Your task to perform on an android device: star an email in the gmail app Image 0: 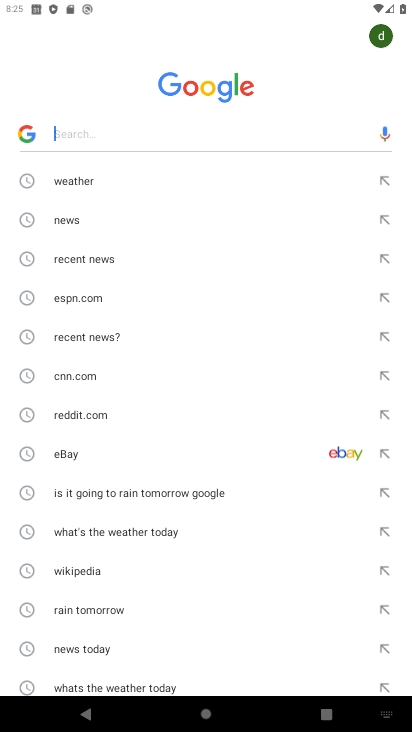
Step 0: press home button
Your task to perform on an android device: star an email in the gmail app Image 1: 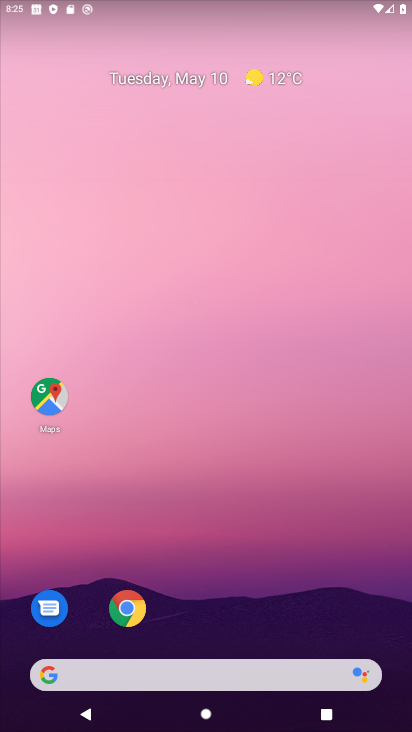
Step 1: drag from (191, 675) to (221, 288)
Your task to perform on an android device: star an email in the gmail app Image 2: 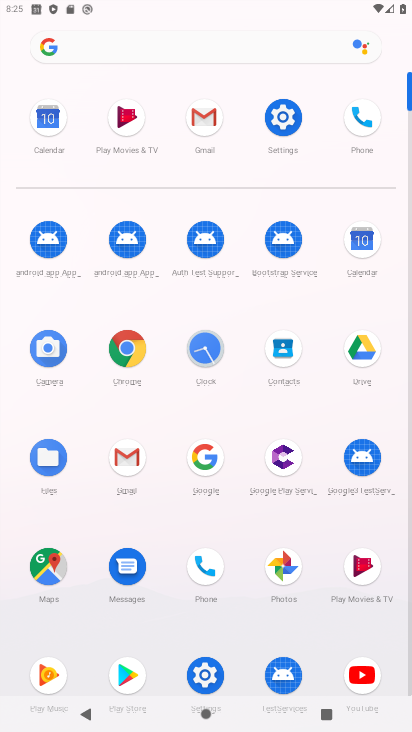
Step 2: click (269, 340)
Your task to perform on an android device: star an email in the gmail app Image 3: 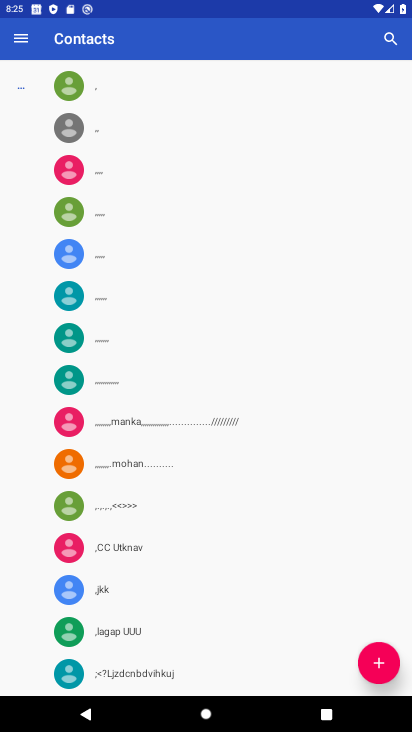
Step 3: press home button
Your task to perform on an android device: star an email in the gmail app Image 4: 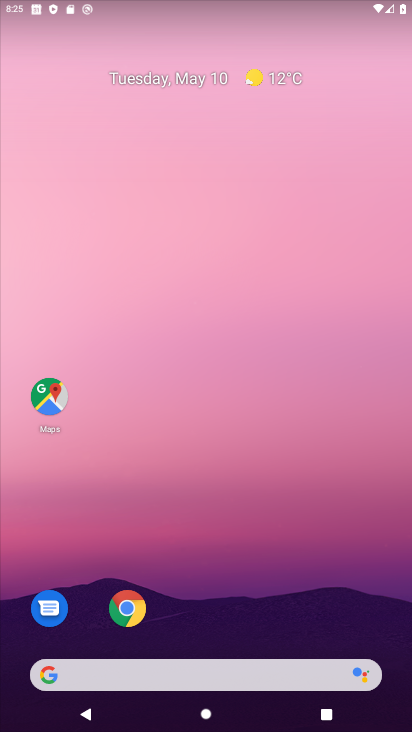
Step 4: drag from (234, 654) to (259, 349)
Your task to perform on an android device: star an email in the gmail app Image 5: 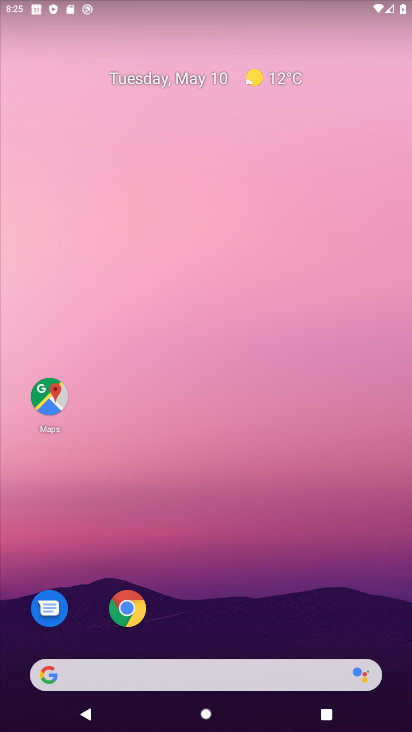
Step 5: drag from (219, 683) to (178, 356)
Your task to perform on an android device: star an email in the gmail app Image 6: 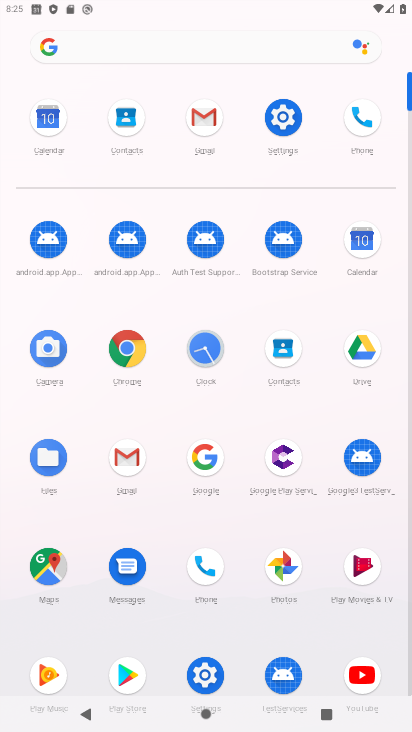
Step 6: click (131, 467)
Your task to perform on an android device: star an email in the gmail app Image 7: 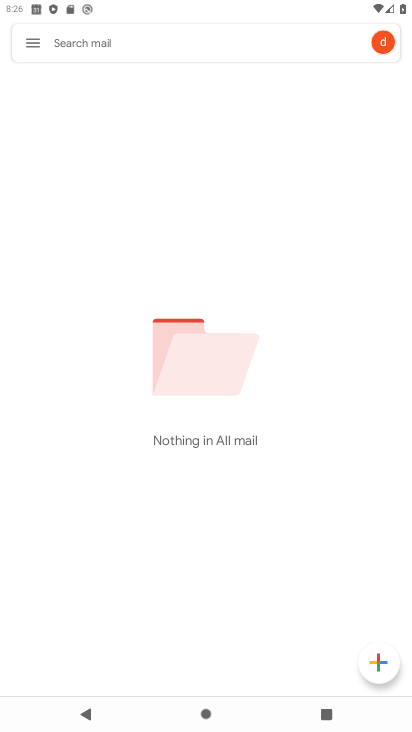
Step 7: click (35, 50)
Your task to perform on an android device: star an email in the gmail app Image 8: 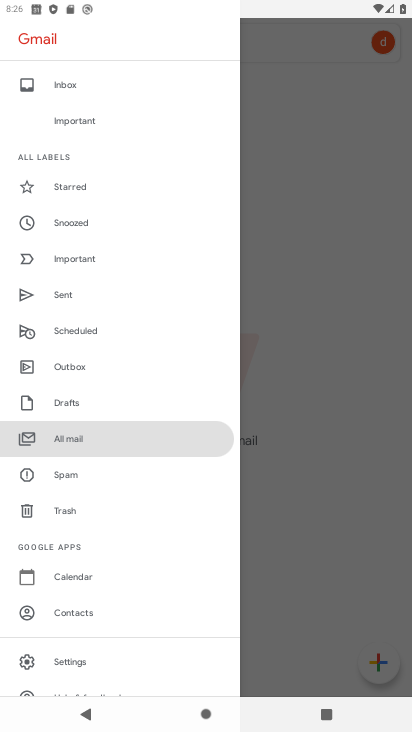
Step 8: click (68, 192)
Your task to perform on an android device: star an email in the gmail app Image 9: 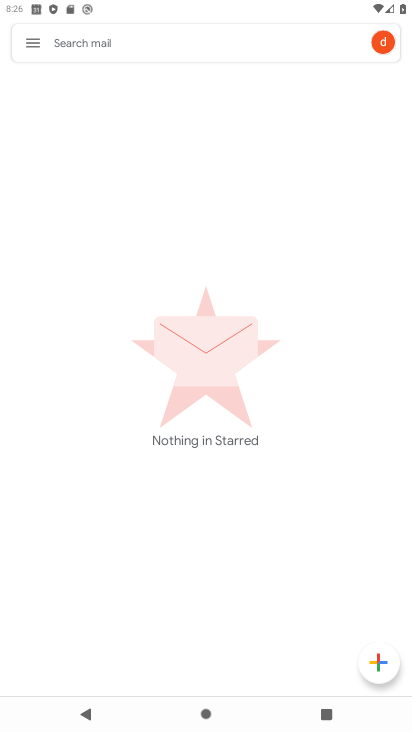
Step 9: task complete